Your task to perform on an android device: open sync settings in chrome Image 0: 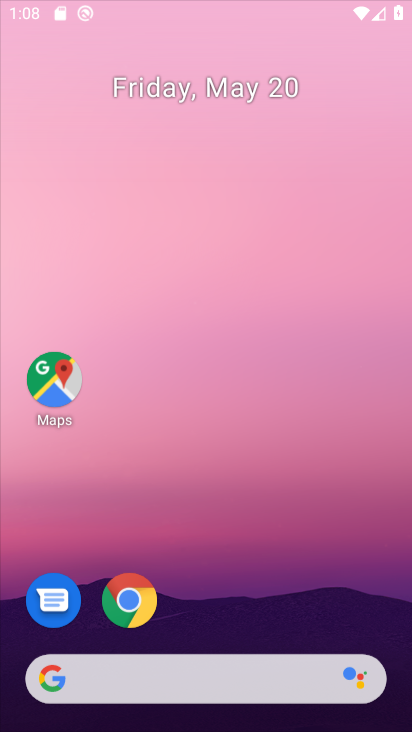
Step 0: drag from (242, 474) to (180, 14)
Your task to perform on an android device: open sync settings in chrome Image 1: 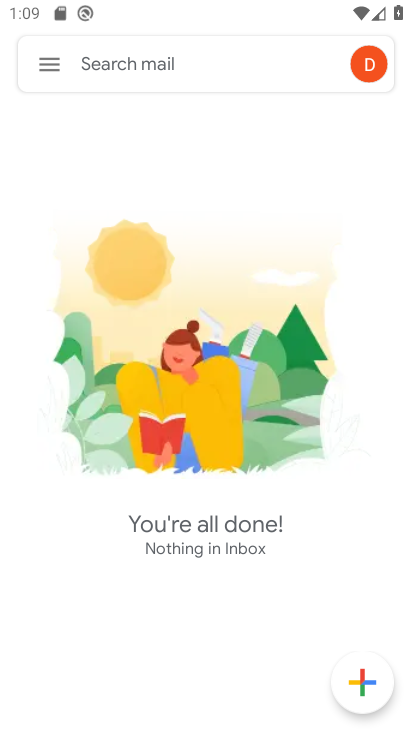
Step 1: press home button
Your task to perform on an android device: open sync settings in chrome Image 2: 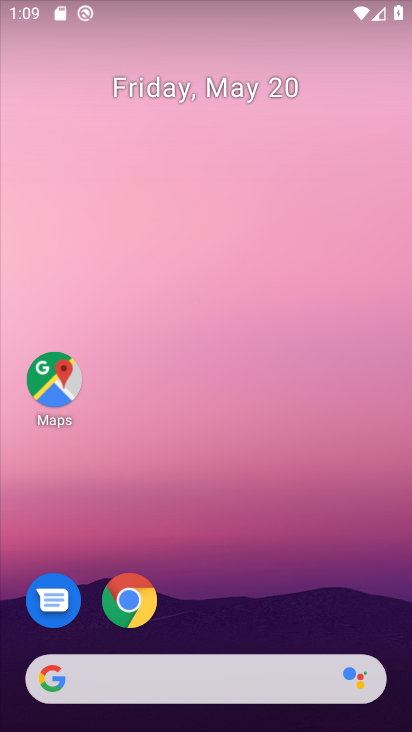
Step 2: click (140, 597)
Your task to perform on an android device: open sync settings in chrome Image 3: 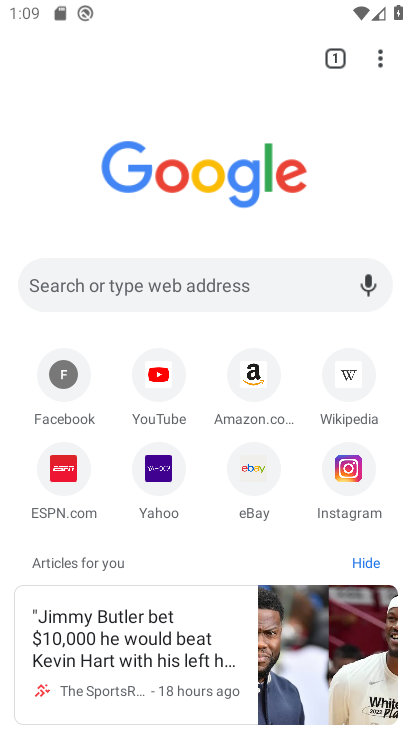
Step 3: click (382, 57)
Your task to perform on an android device: open sync settings in chrome Image 4: 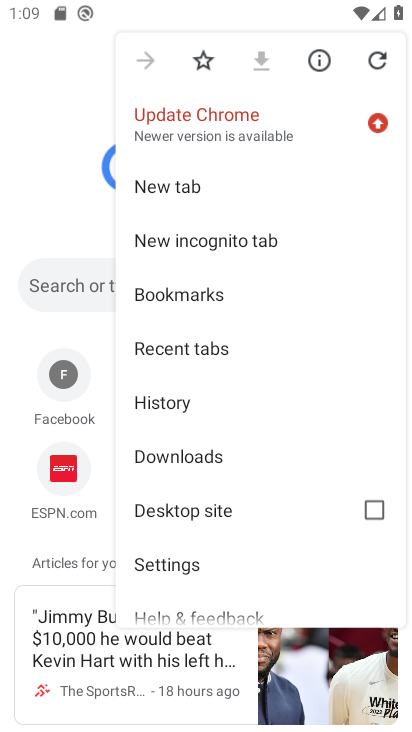
Step 4: click (239, 553)
Your task to perform on an android device: open sync settings in chrome Image 5: 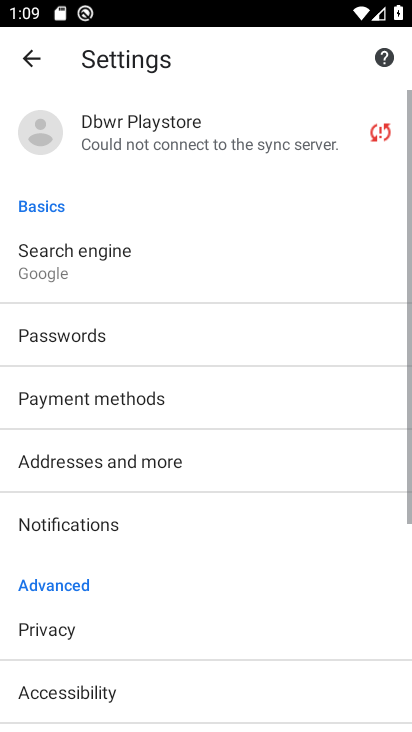
Step 5: drag from (219, 613) to (177, 218)
Your task to perform on an android device: open sync settings in chrome Image 6: 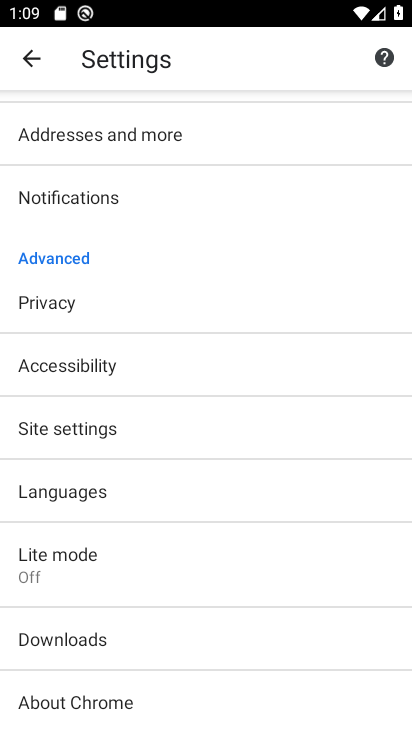
Step 6: click (127, 413)
Your task to perform on an android device: open sync settings in chrome Image 7: 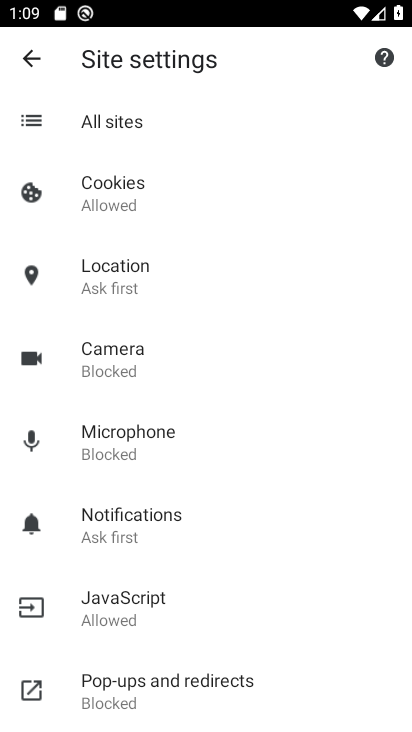
Step 7: drag from (216, 587) to (189, 254)
Your task to perform on an android device: open sync settings in chrome Image 8: 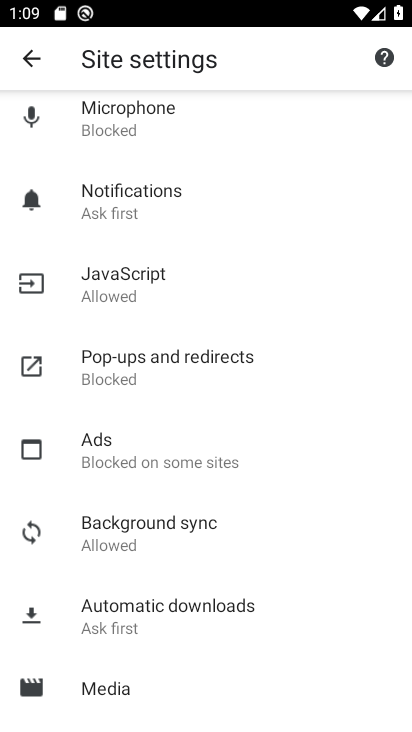
Step 8: click (155, 539)
Your task to perform on an android device: open sync settings in chrome Image 9: 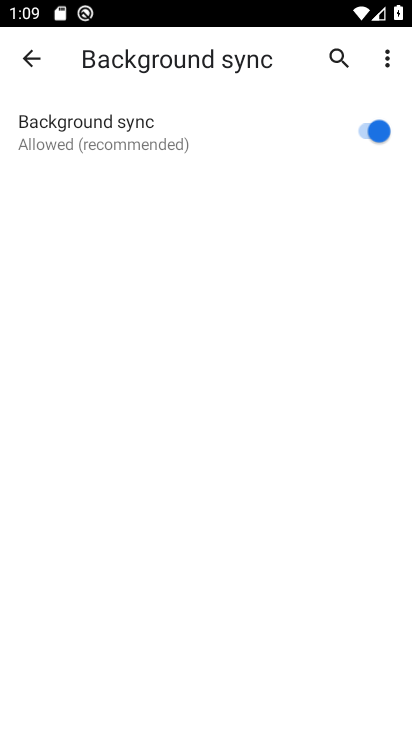
Step 9: task complete